Your task to perform on an android device: turn on showing notifications on the lock screen Image 0: 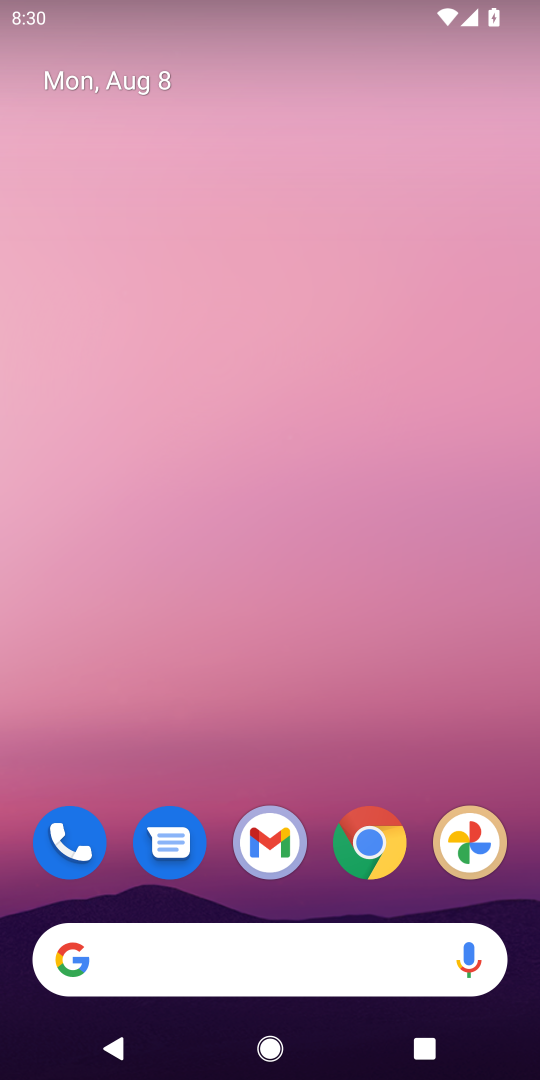
Step 0: drag from (318, 770) to (295, 34)
Your task to perform on an android device: turn on showing notifications on the lock screen Image 1: 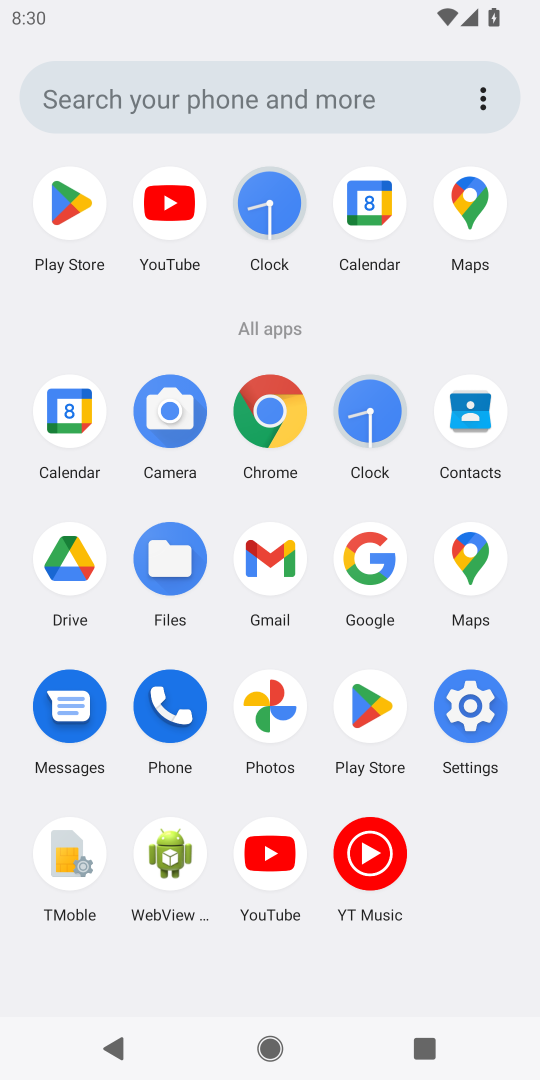
Step 1: click (463, 705)
Your task to perform on an android device: turn on showing notifications on the lock screen Image 2: 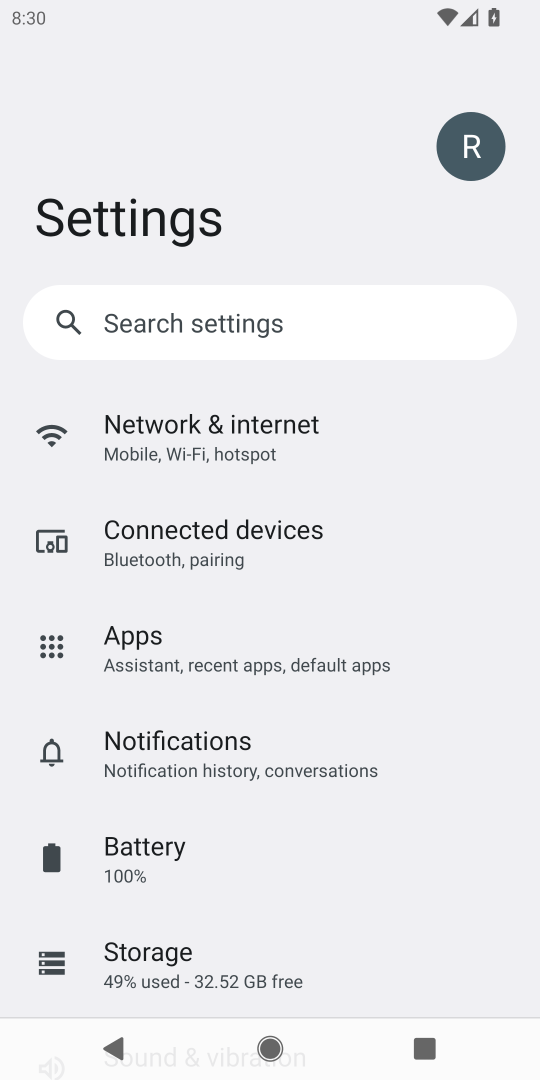
Step 2: click (299, 759)
Your task to perform on an android device: turn on showing notifications on the lock screen Image 3: 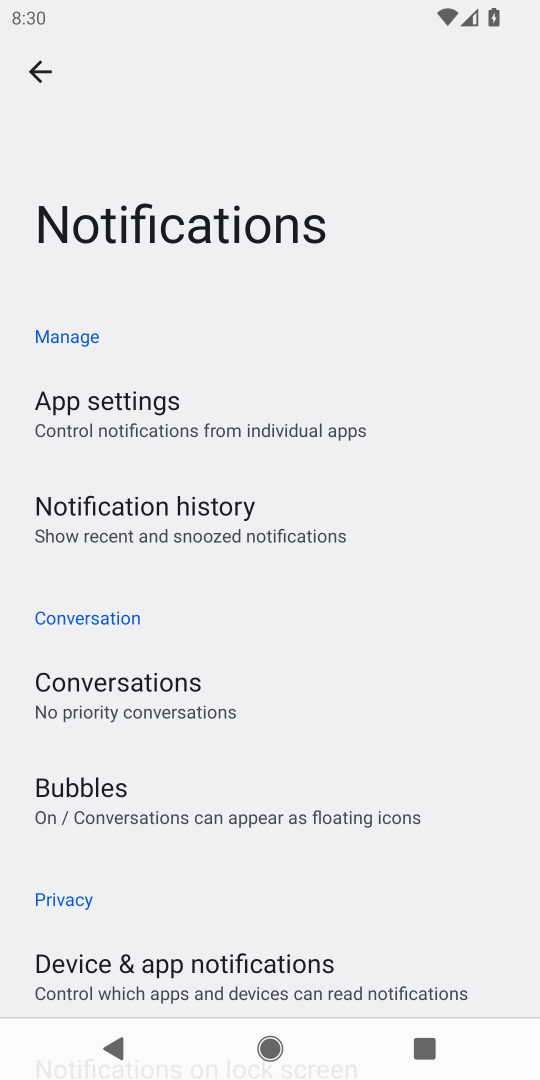
Step 3: drag from (280, 913) to (236, 451)
Your task to perform on an android device: turn on showing notifications on the lock screen Image 4: 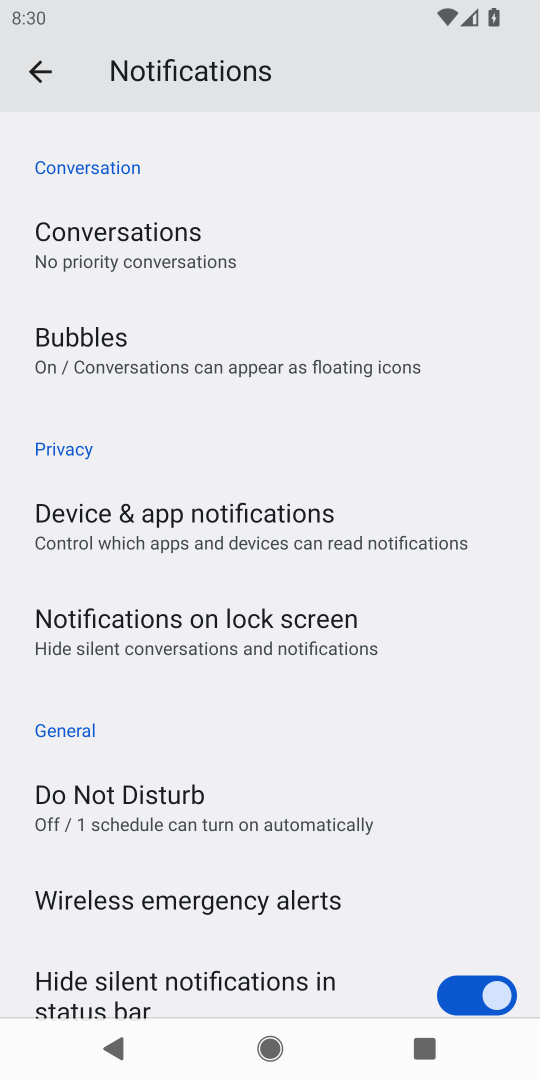
Step 4: click (314, 628)
Your task to perform on an android device: turn on showing notifications on the lock screen Image 5: 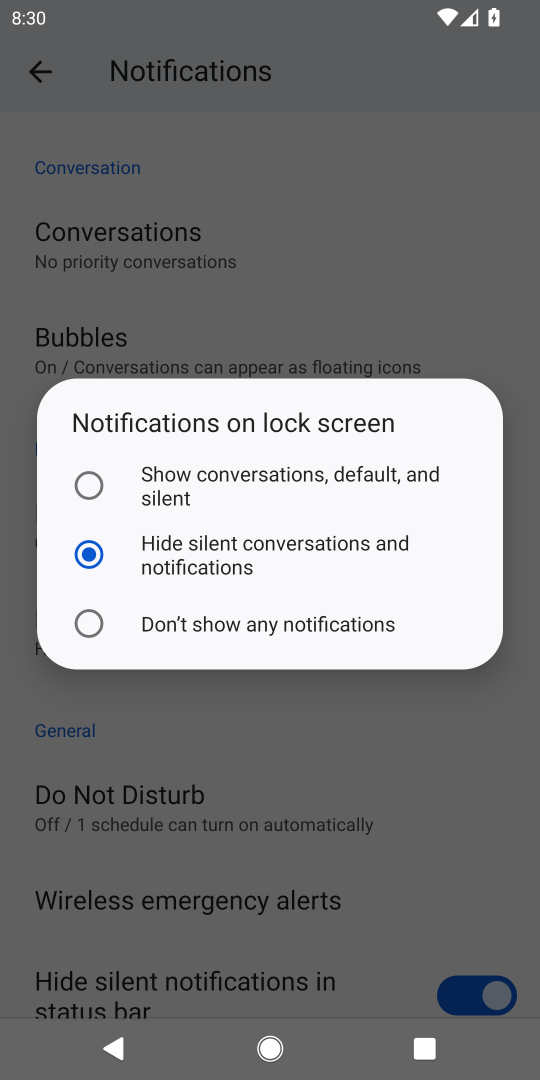
Step 5: click (345, 483)
Your task to perform on an android device: turn on showing notifications on the lock screen Image 6: 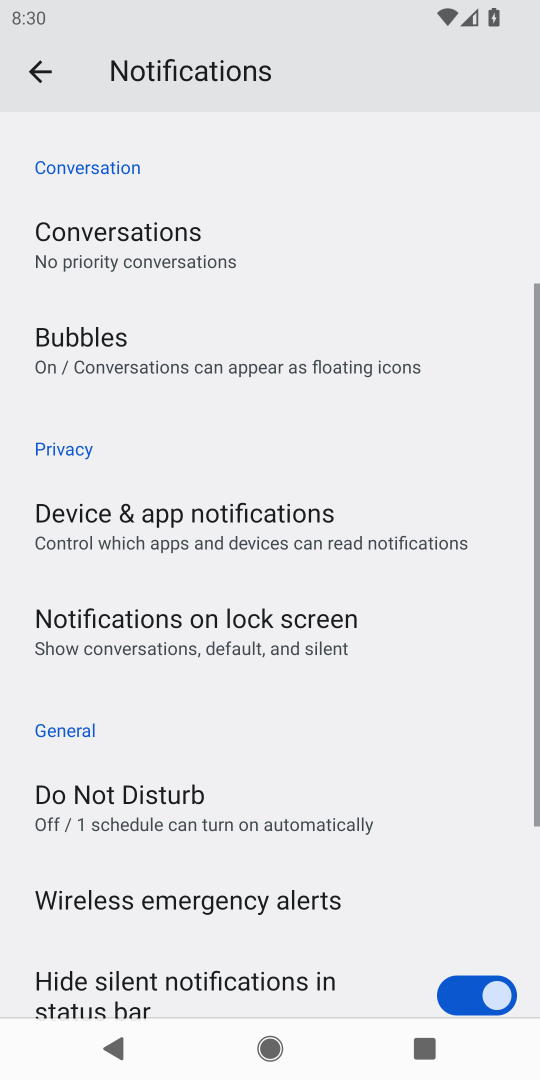
Step 6: task complete